Your task to perform on an android device: change the clock display to digital Image 0: 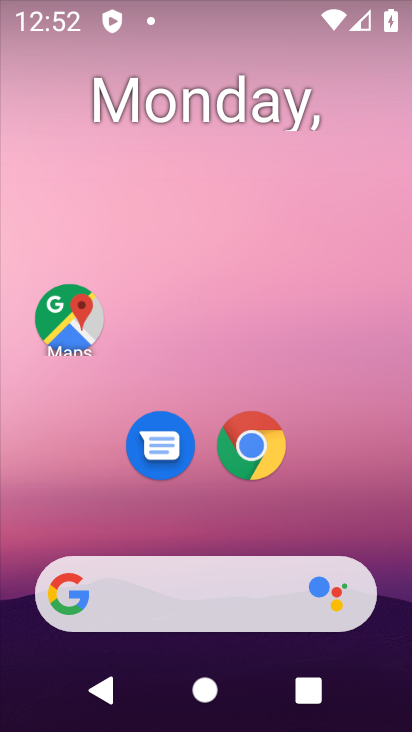
Step 0: drag from (384, 631) to (388, 136)
Your task to perform on an android device: change the clock display to digital Image 1: 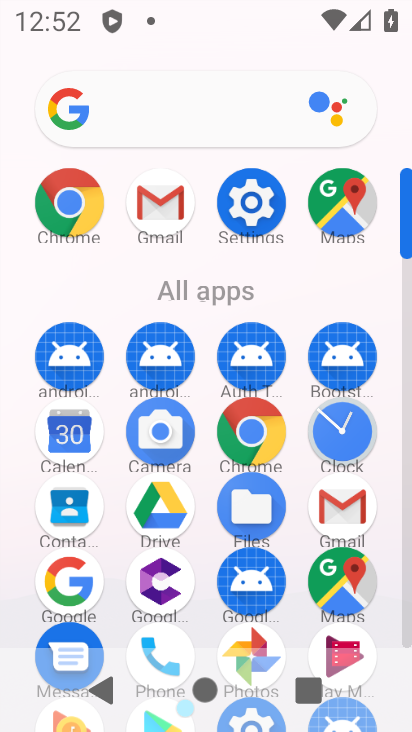
Step 1: click (341, 434)
Your task to perform on an android device: change the clock display to digital Image 2: 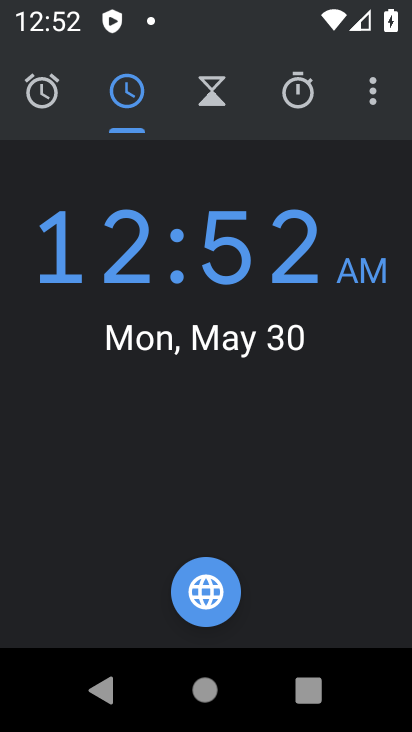
Step 2: click (373, 98)
Your task to perform on an android device: change the clock display to digital Image 3: 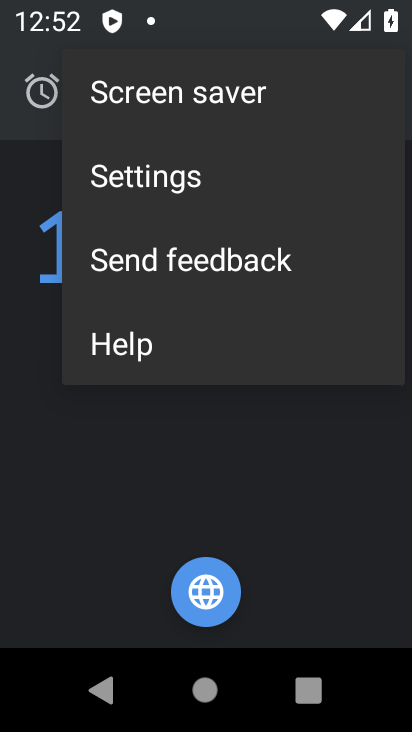
Step 3: click (186, 169)
Your task to perform on an android device: change the clock display to digital Image 4: 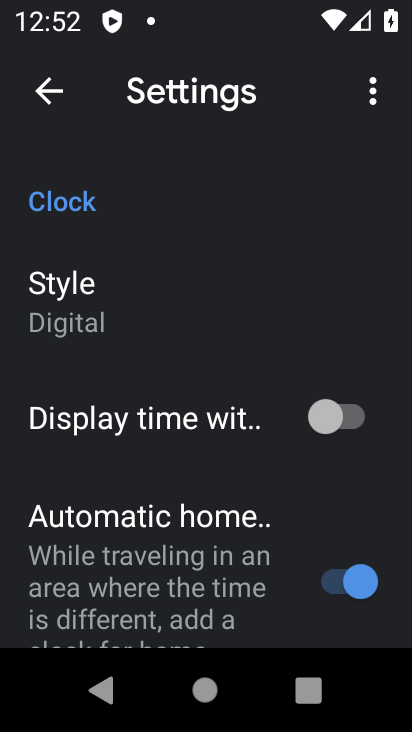
Step 4: click (73, 298)
Your task to perform on an android device: change the clock display to digital Image 5: 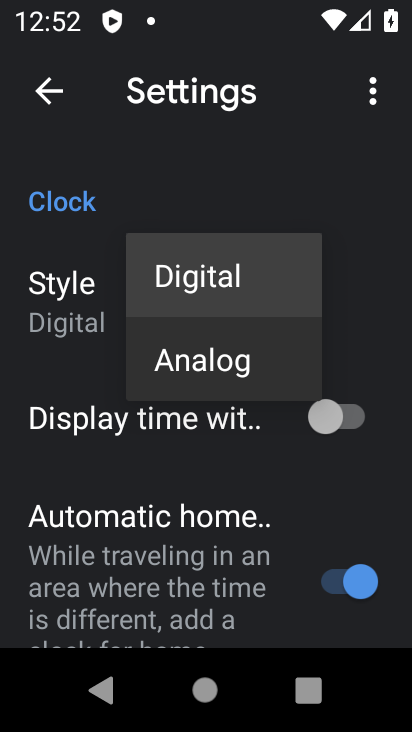
Step 5: task complete